Your task to perform on an android device: open app "Google Sheets" (install if not already installed) Image 0: 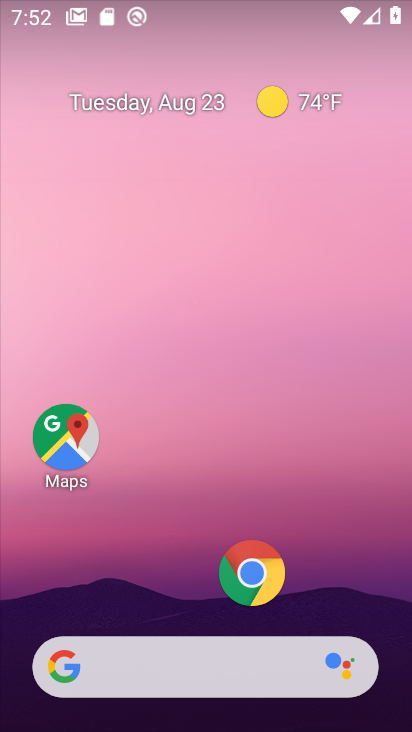
Step 0: drag from (169, 557) to (187, 76)
Your task to perform on an android device: open app "Google Sheets" (install if not already installed) Image 1: 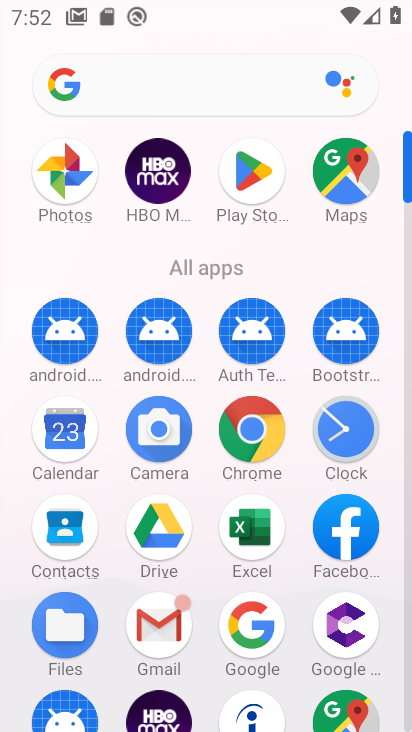
Step 1: click (251, 165)
Your task to perform on an android device: open app "Google Sheets" (install if not already installed) Image 2: 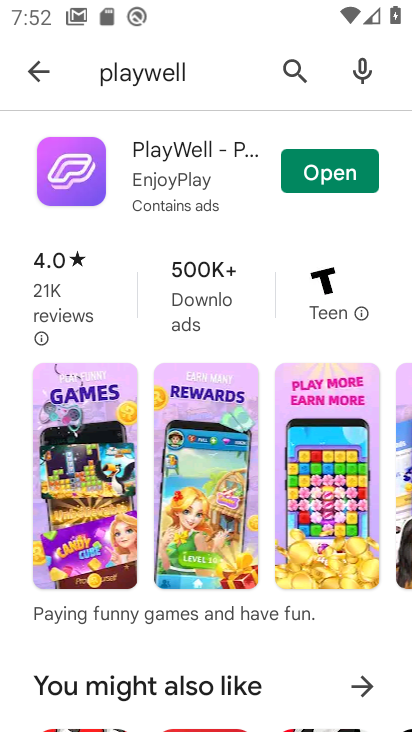
Step 2: click (34, 73)
Your task to perform on an android device: open app "Google Sheets" (install if not already installed) Image 3: 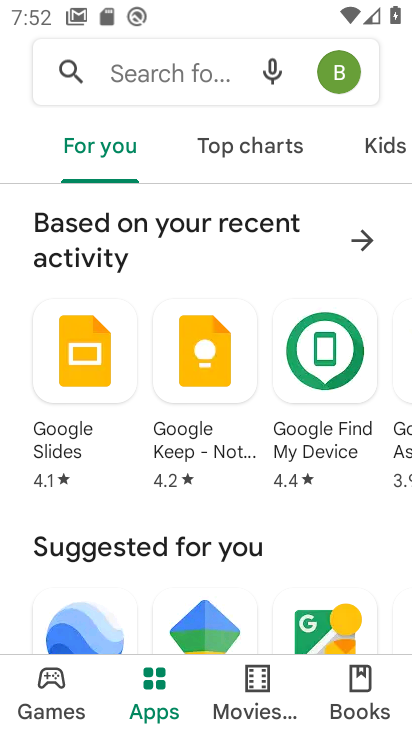
Step 3: click (128, 73)
Your task to perform on an android device: open app "Google Sheets" (install if not already installed) Image 4: 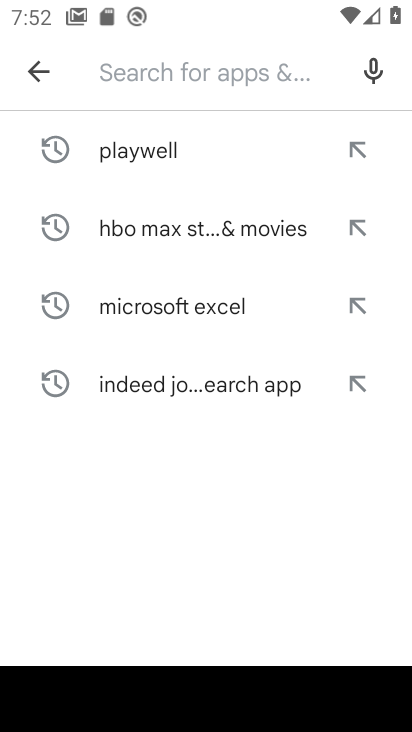
Step 4: type "Google Sheets"
Your task to perform on an android device: open app "Google Sheets" (install if not already installed) Image 5: 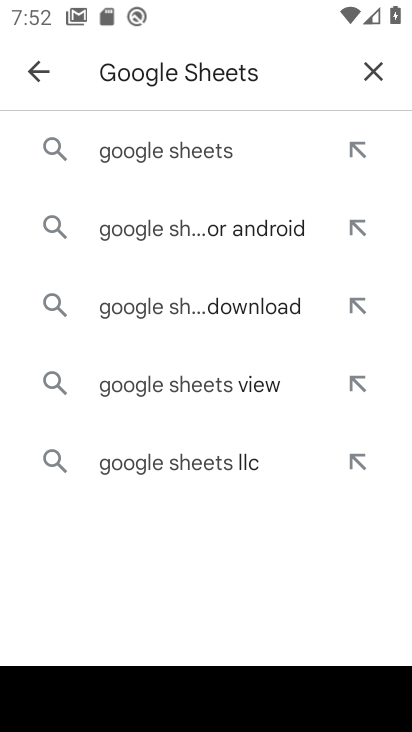
Step 5: click (217, 154)
Your task to perform on an android device: open app "Google Sheets" (install if not already installed) Image 6: 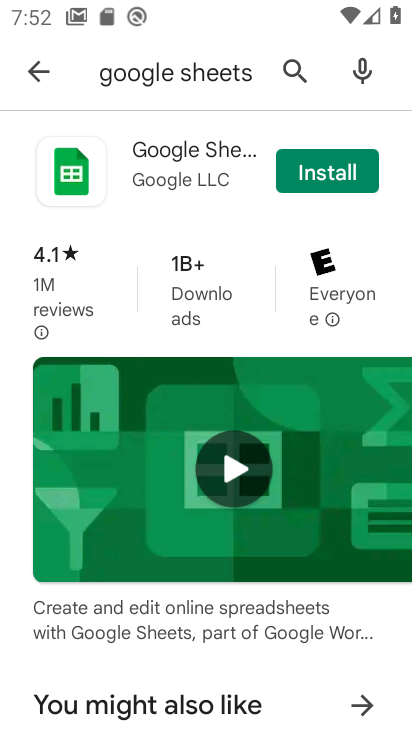
Step 6: click (331, 171)
Your task to perform on an android device: open app "Google Sheets" (install if not already installed) Image 7: 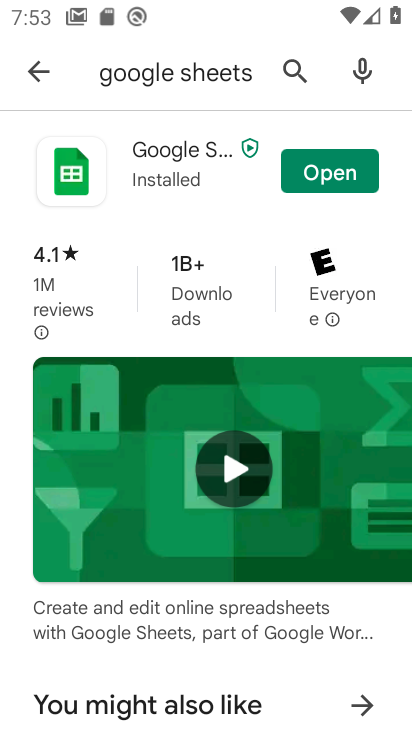
Step 7: click (317, 173)
Your task to perform on an android device: open app "Google Sheets" (install if not already installed) Image 8: 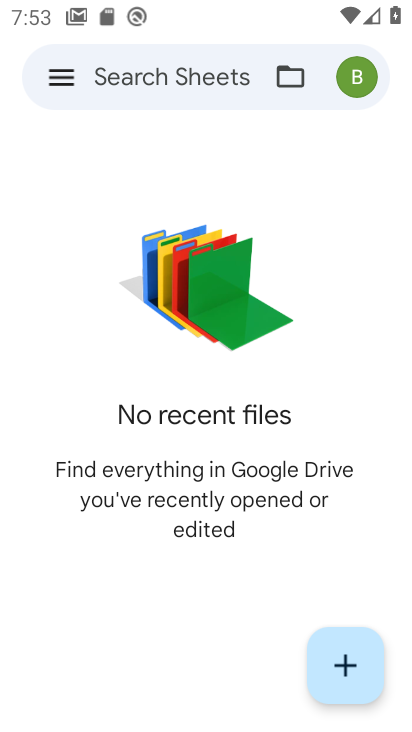
Step 8: task complete